Your task to perform on an android device: open a bookmark in the chrome app Image 0: 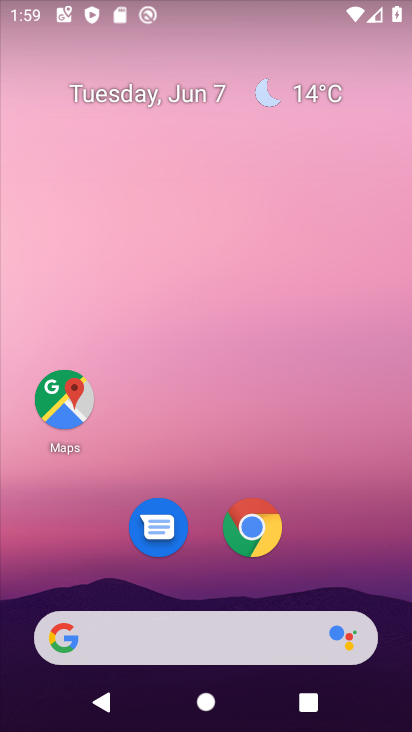
Step 0: click (241, 529)
Your task to perform on an android device: open a bookmark in the chrome app Image 1: 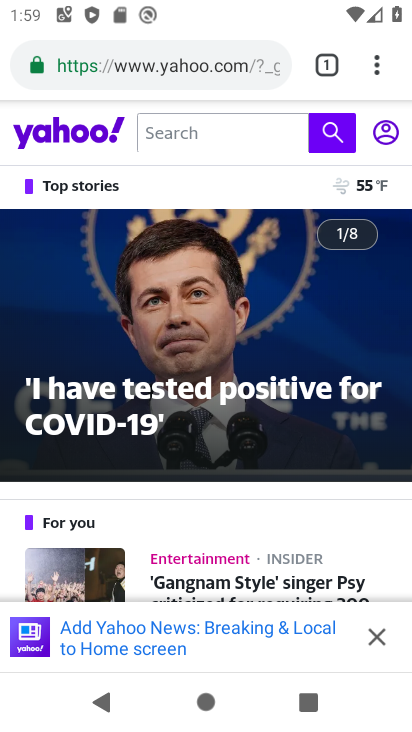
Step 1: click (386, 80)
Your task to perform on an android device: open a bookmark in the chrome app Image 2: 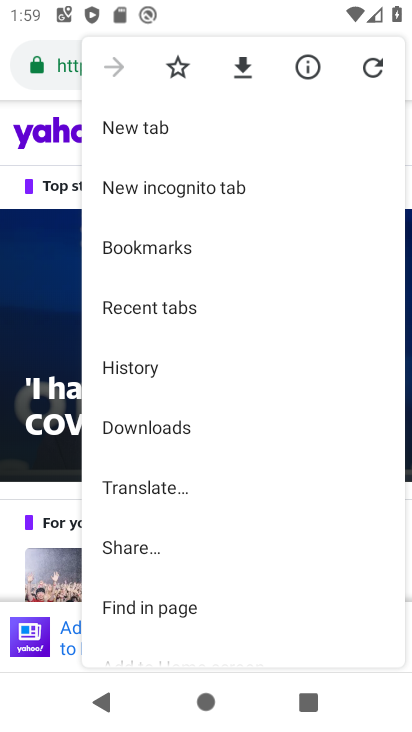
Step 2: click (198, 254)
Your task to perform on an android device: open a bookmark in the chrome app Image 3: 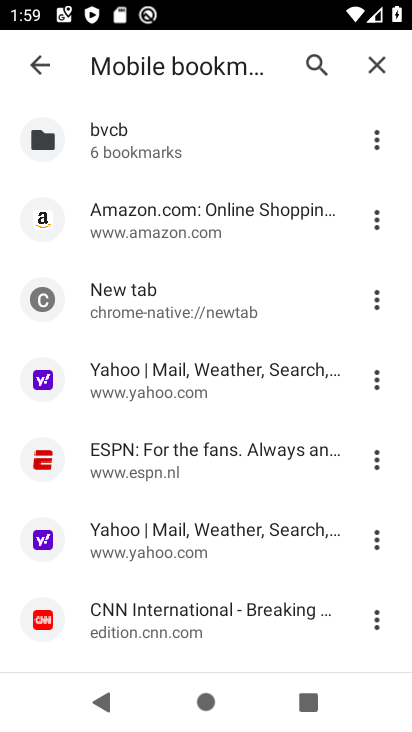
Step 3: click (197, 451)
Your task to perform on an android device: open a bookmark in the chrome app Image 4: 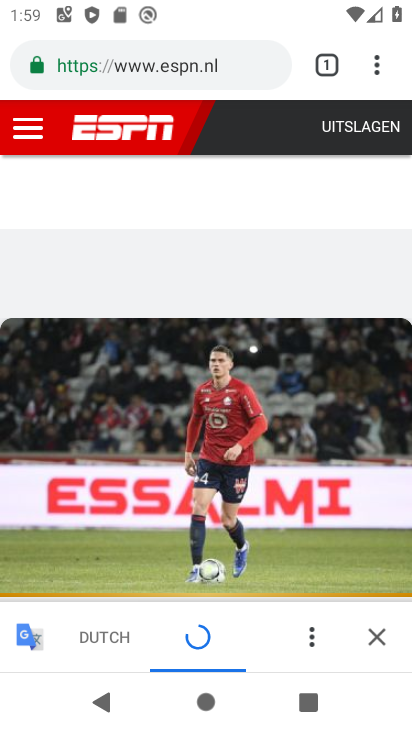
Step 4: task complete